Your task to perform on an android device: open wifi settings Image 0: 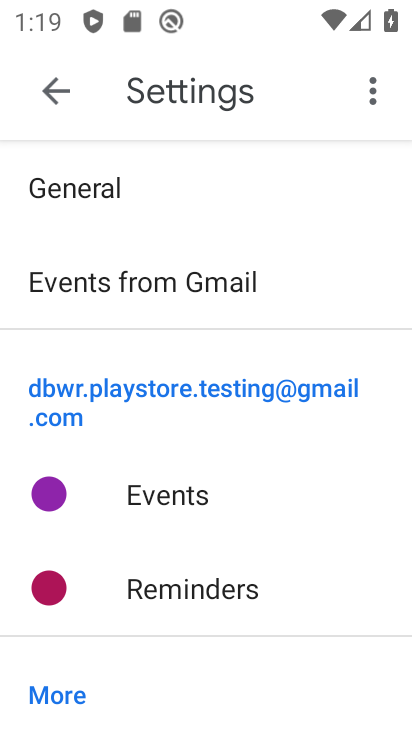
Step 0: drag from (248, 556) to (241, 172)
Your task to perform on an android device: open wifi settings Image 1: 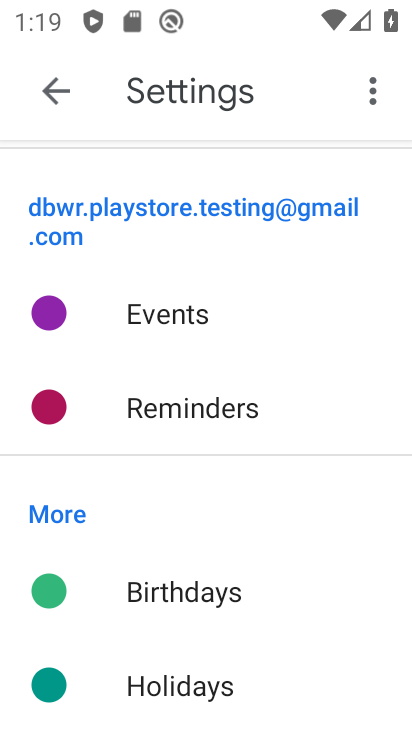
Step 1: press home button
Your task to perform on an android device: open wifi settings Image 2: 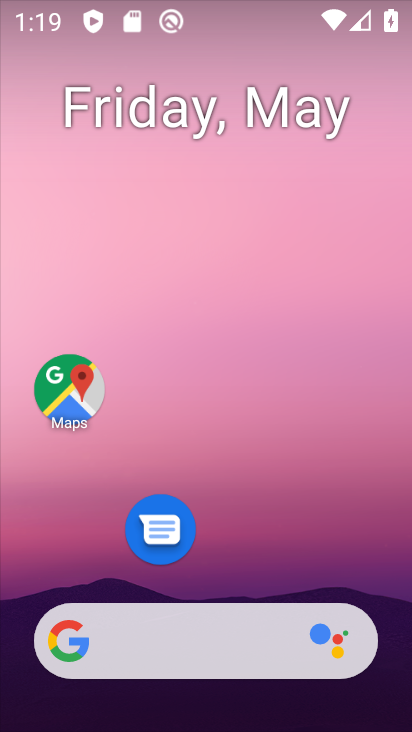
Step 2: drag from (219, 571) to (196, 152)
Your task to perform on an android device: open wifi settings Image 3: 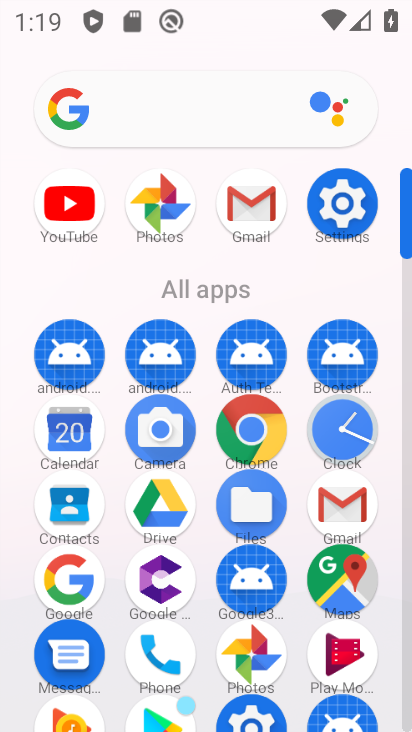
Step 3: click (340, 210)
Your task to perform on an android device: open wifi settings Image 4: 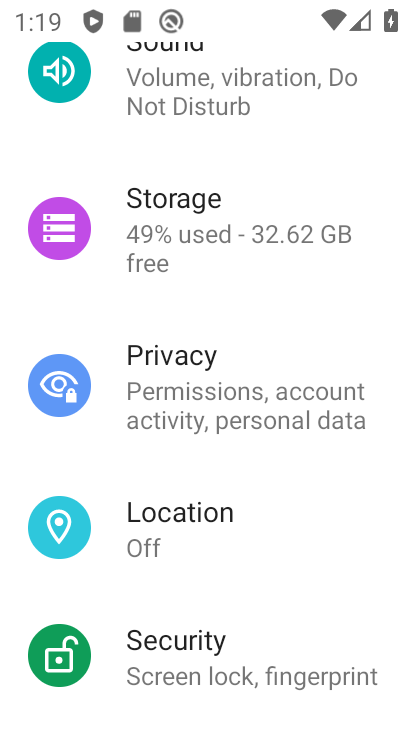
Step 4: drag from (210, 123) to (247, 729)
Your task to perform on an android device: open wifi settings Image 5: 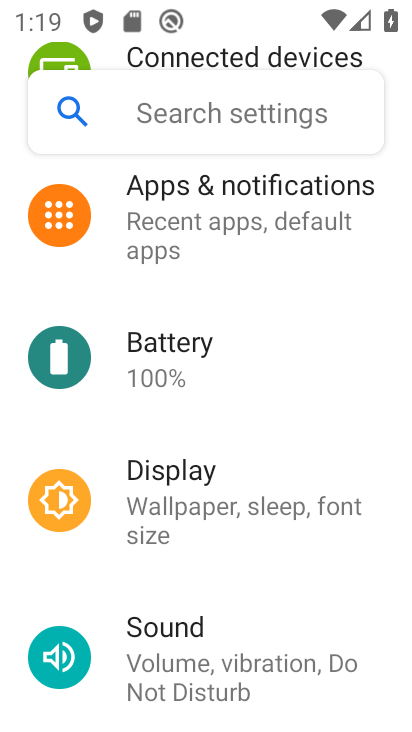
Step 5: drag from (244, 230) to (271, 661)
Your task to perform on an android device: open wifi settings Image 6: 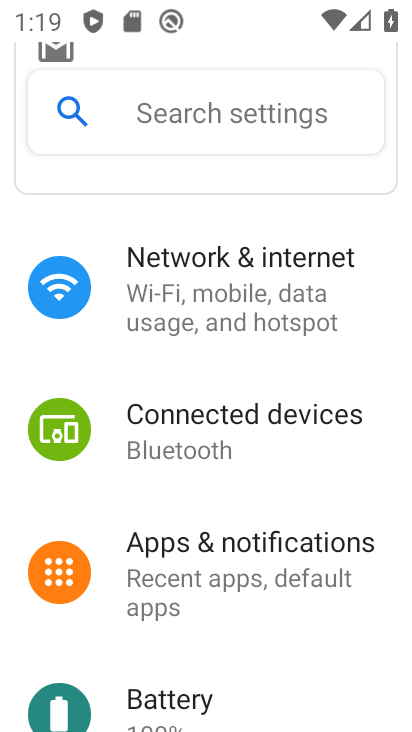
Step 6: click (191, 311)
Your task to perform on an android device: open wifi settings Image 7: 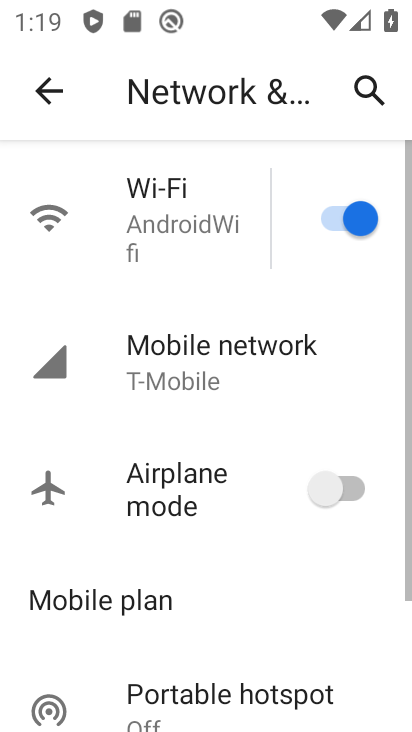
Step 7: click (217, 234)
Your task to perform on an android device: open wifi settings Image 8: 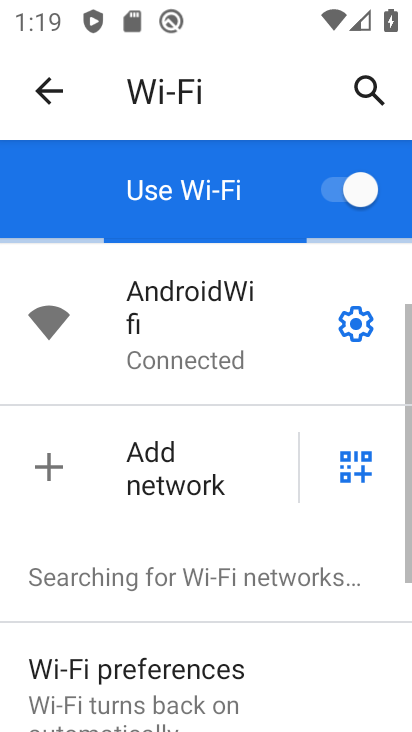
Step 8: task complete